Your task to perform on an android device: Search for Mexican restaurants on Maps Image 0: 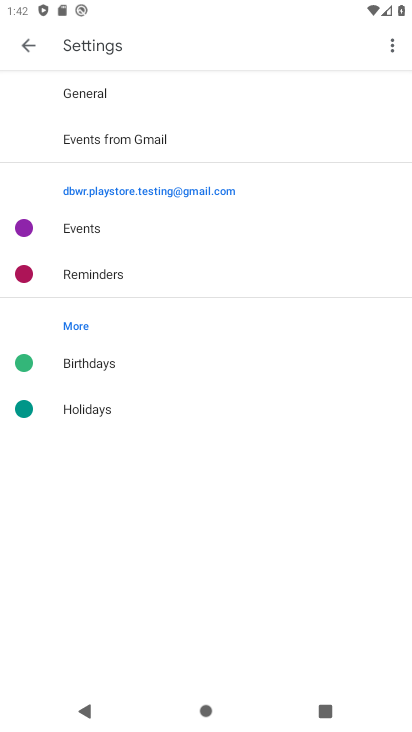
Step 0: press home button
Your task to perform on an android device: Search for Mexican restaurants on Maps Image 1: 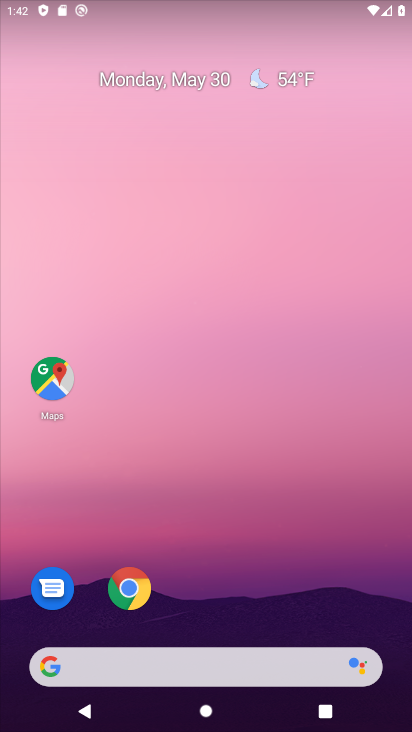
Step 1: click (52, 382)
Your task to perform on an android device: Search for Mexican restaurants on Maps Image 2: 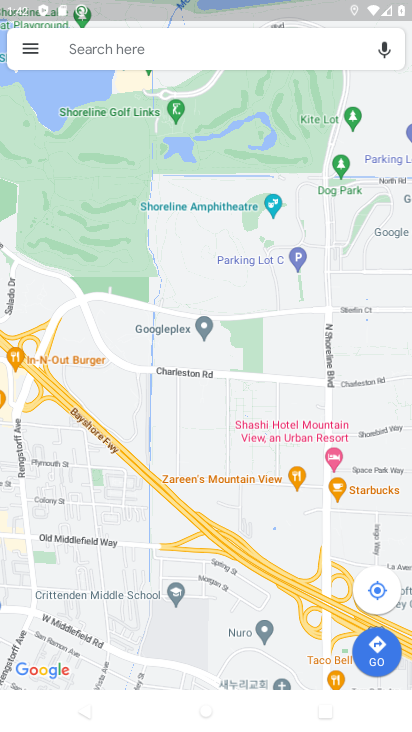
Step 2: click (202, 46)
Your task to perform on an android device: Search for Mexican restaurants on Maps Image 3: 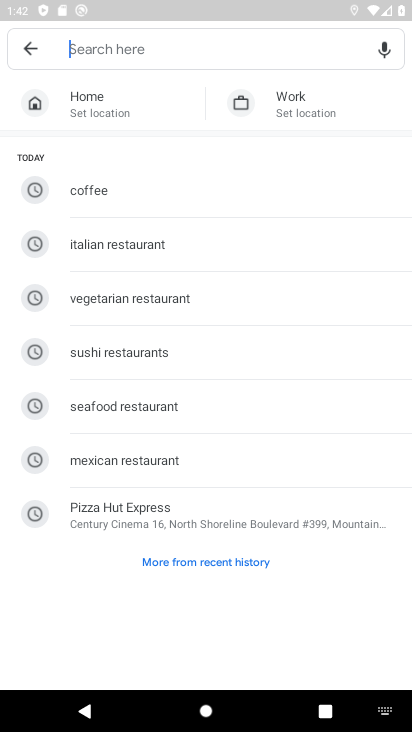
Step 3: click (148, 462)
Your task to perform on an android device: Search for Mexican restaurants on Maps Image 4: 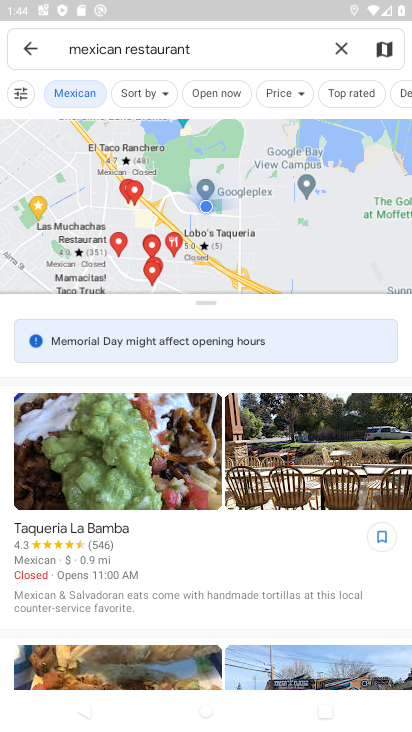
Step 4: task complete